Your task to perform on an android device: open wifi settings Image 0: 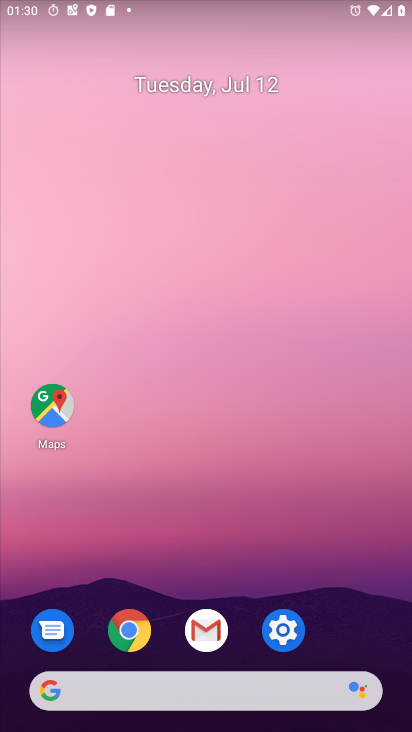
Step 0: click (275, 630)
Your task to perform on an android device: open wifi settings Image 1: 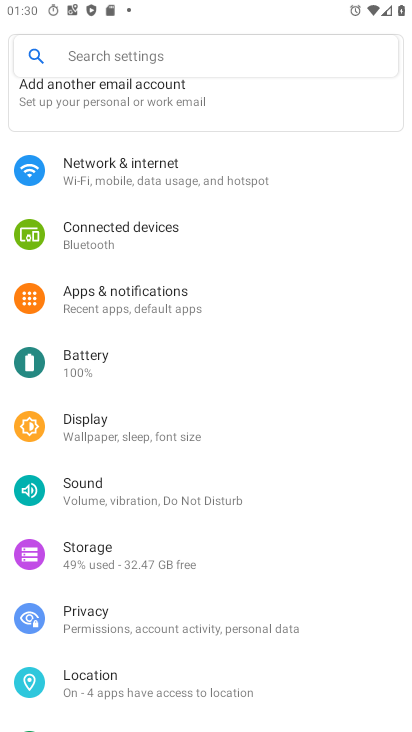
Step 1: click (156, 168)
Your task to perform on an android device: open wifi settings Image 2: 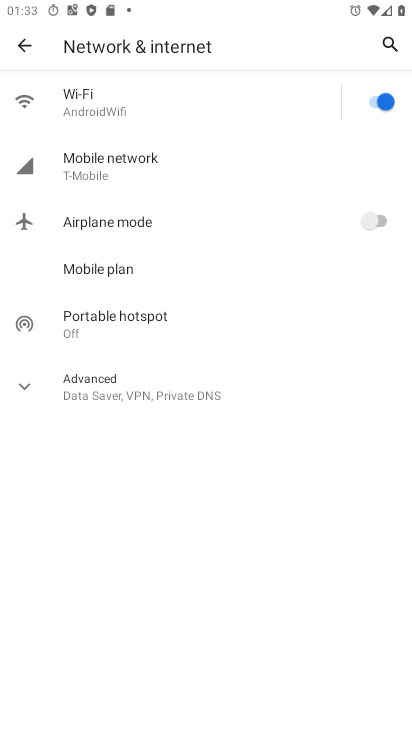
Step 2: task complete